Your task to perform on an android device: Find coffee shops on Maps Image 0: 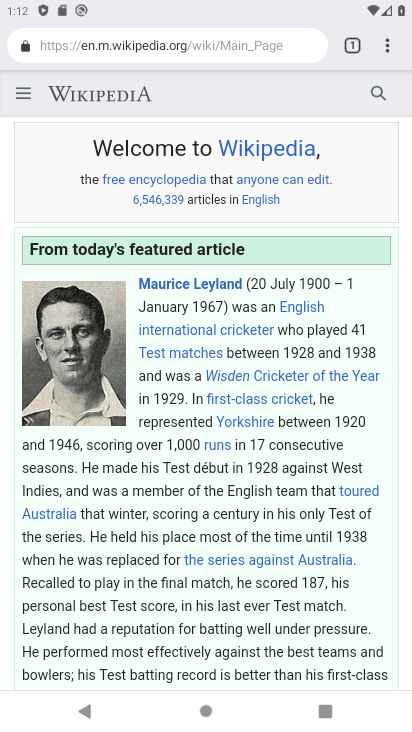
Step 0: press home button
Your task to perform on an android device: Find coffee shops on Maps Image 1: 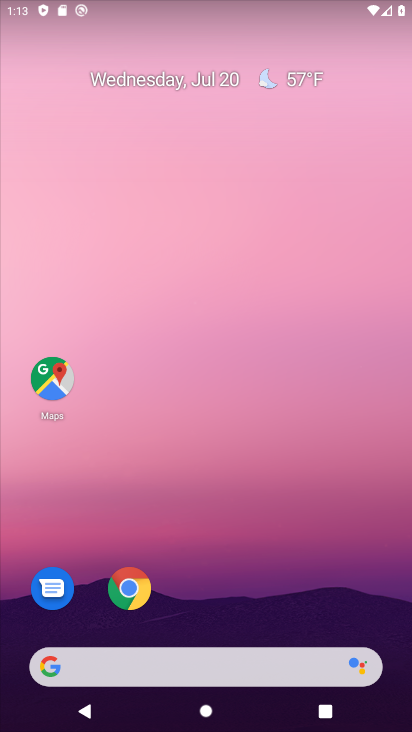
Step 1: click (49, 385)
Your task to perform on an android device: Find coffee shops on Maps Image 2: 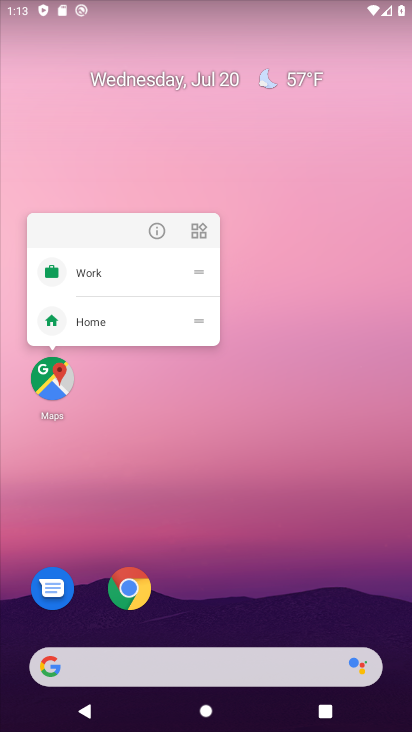
Step 2: click (54, 369)
Your task to perform on an android device: Find coffee shops on Maps Image 3: 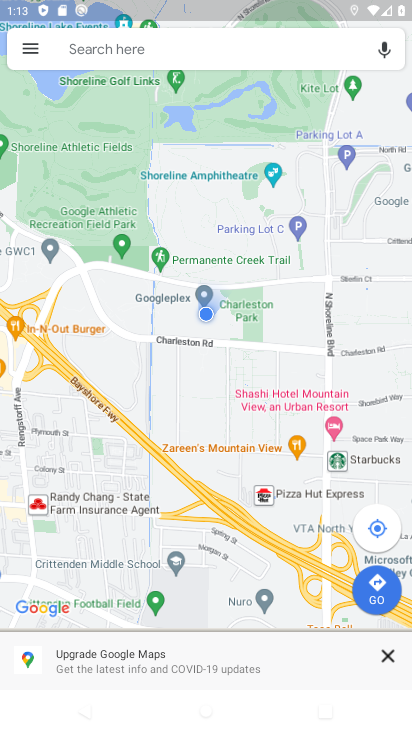
Step 3: click (108, 51)
Your task to perform on an android device: Find coffee shops on Maps Image 4: 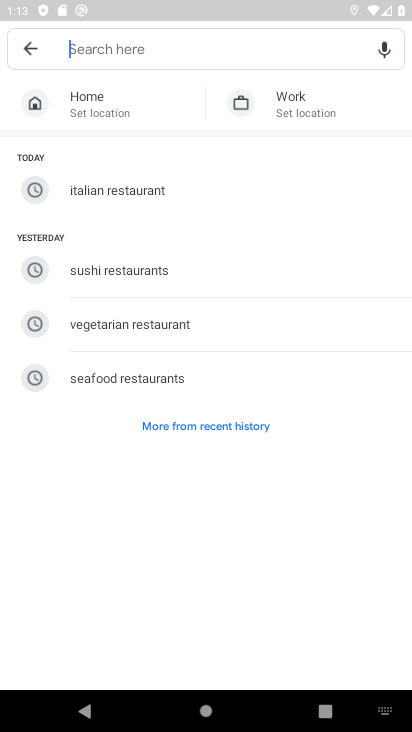
Step 4: type "coffee"
Your task to perform on an android device: Find coffee shops on Maps Image 5: 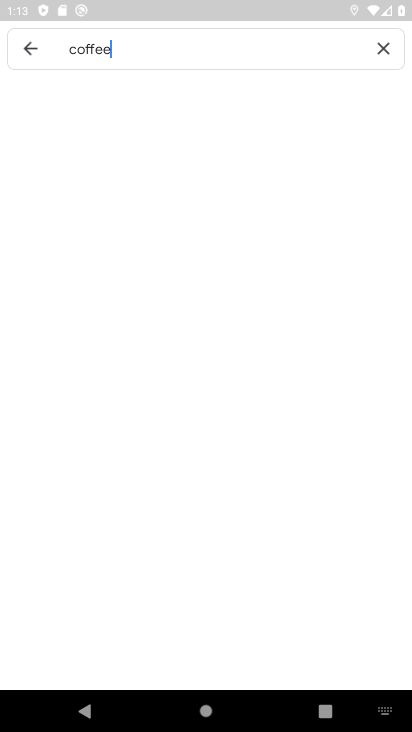
Step 5: type ""
Your task to perform on an android device: Find coffee shops on Maps Image 6: 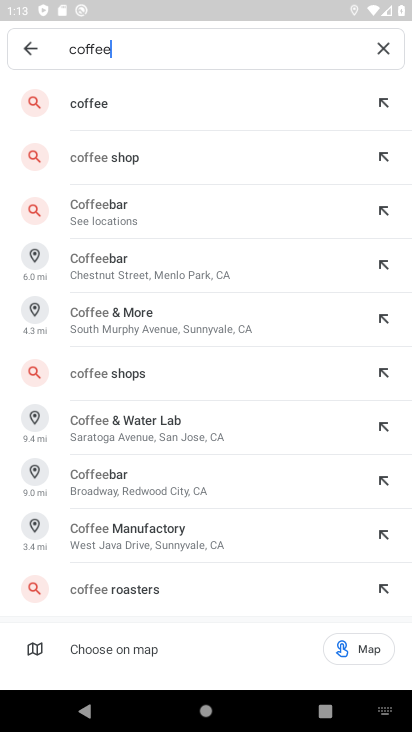
Step 6: click (179, 96)
Your task to perform on an android device: Find coffee shops on Maps Image 7: 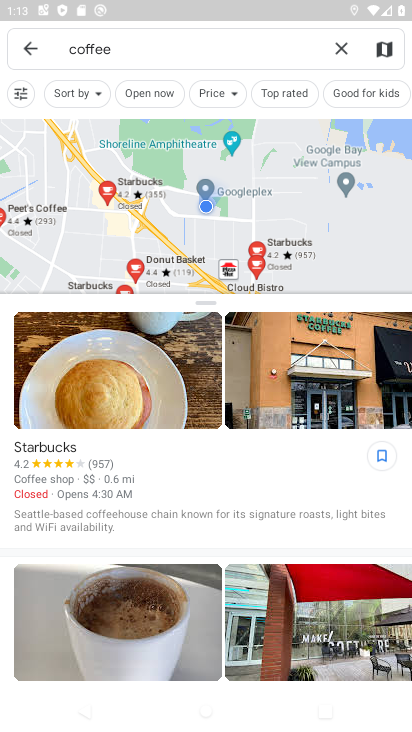
Step 7: task complete